Your task to perform on an android device: visit the assistant section in the google photos Image 0: 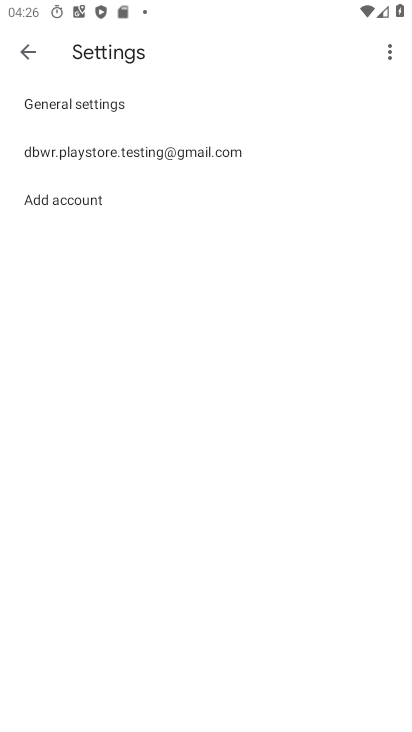
Step 0: click (24, 52)
Your task to perform on an android device: visit the assistant section in the google photos Image 1: 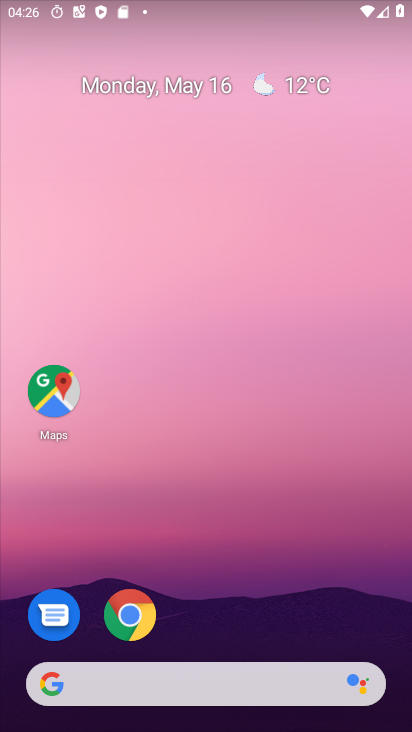
Step 1: drag from (311, 713) to (243, 3)
Your task to perform on an android device: visit the assistant section in the google photos Image 2: 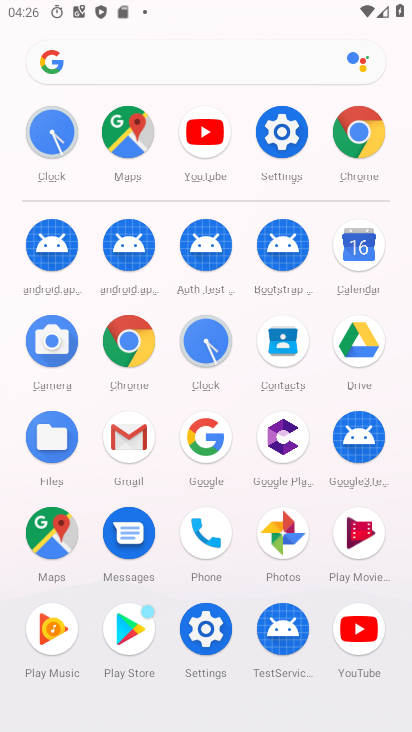
Step 2: click (281, 528)
Your task to perform on an android device: visit the assistant section in the google photos Image 3: 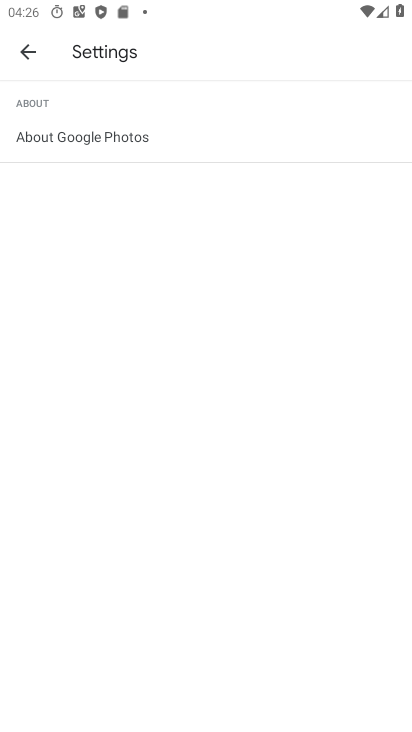
Step 3: click (28, 51)
Your task to perform on an android device: visit the assistant section in the google photos Image 4: 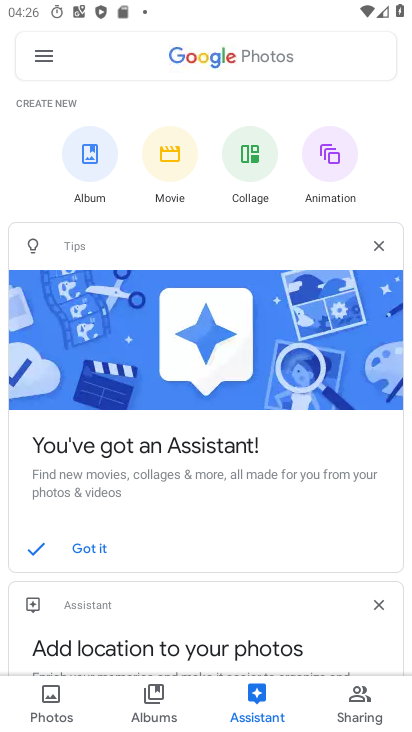
Step 4: drag from (322, 554) to (256, 273)
Your task to perform on an android device: visit the assistant section in the google photos Image 5: 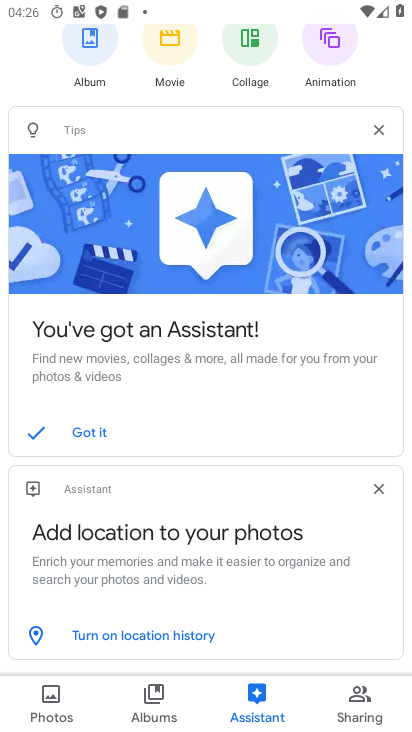
Step 5: drag from (271, 498) to (230, 148)
Your task to perform on an android device: visit the assistant section in the google photos Image 6: 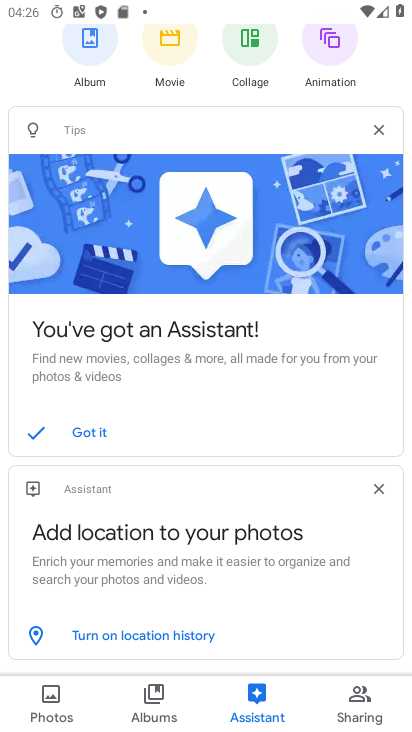
Step 6: drag from (208, 518) to (77, 82)
Your task to perform on an android device: visit the assistant section in the google photos Image 7: 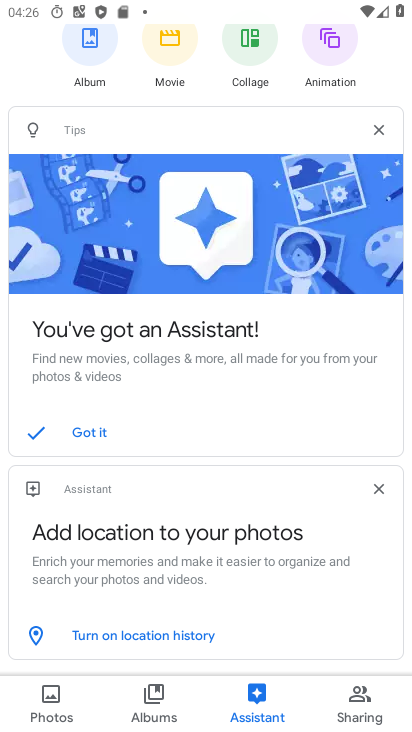
Step 7: drag from (234, 519) to (162, 139)
Your task to perform on an android device: visit the assistant section in the google photos Image 8: 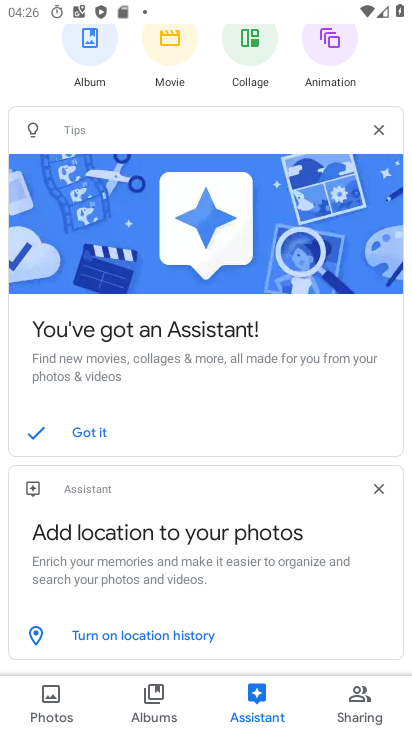
Step 8: drag from (170, 467) to (146, 56)
Your task to perform on an android device: visit the assistant section in the google photos Image 9: 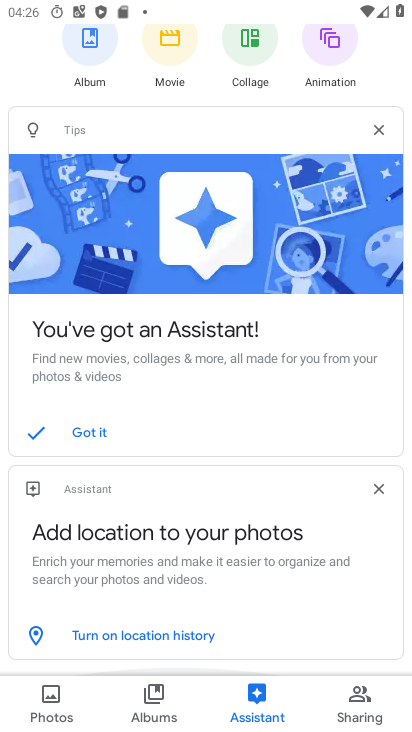
Step 9: drag from (150, 365) to (118, 136)
Your task to perform on an android device: visit the assistant section in the google photos Image 10: 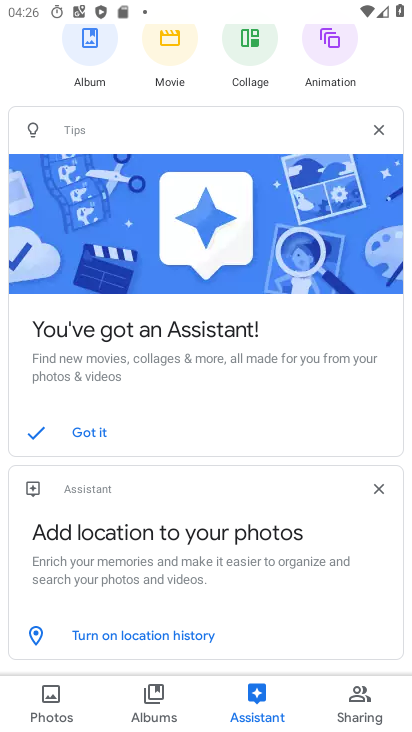
Step 10: drag from (102, 207) to (163, 553)
Your task to perform on an android device: visit the assistant section in the google photos Image 11: 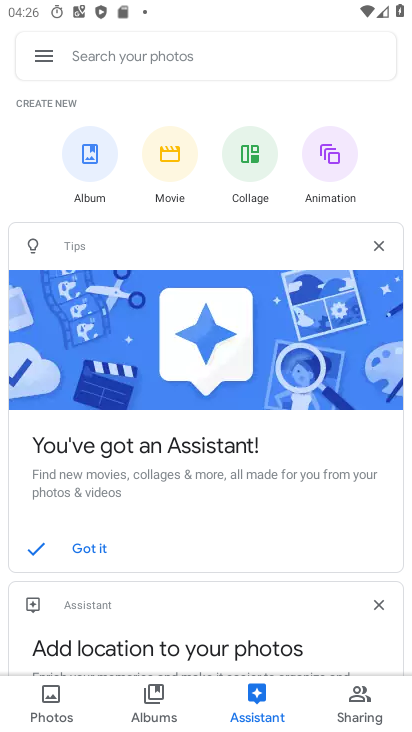
Step 11: drag from (211, 384) to (180, 119)
Your task to perform on an android device: visit the assistant section in the google photos Image 12: 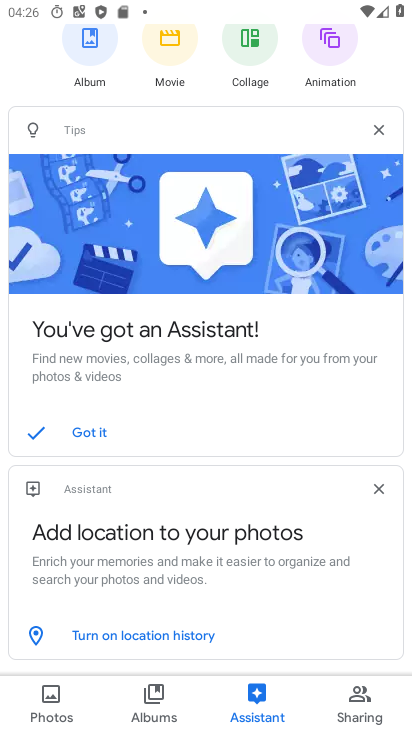
Step 12: drag from (209, 430) to (222, 211)
Your task to perform on an android device: visit the assistant section in the google photos Image 13: 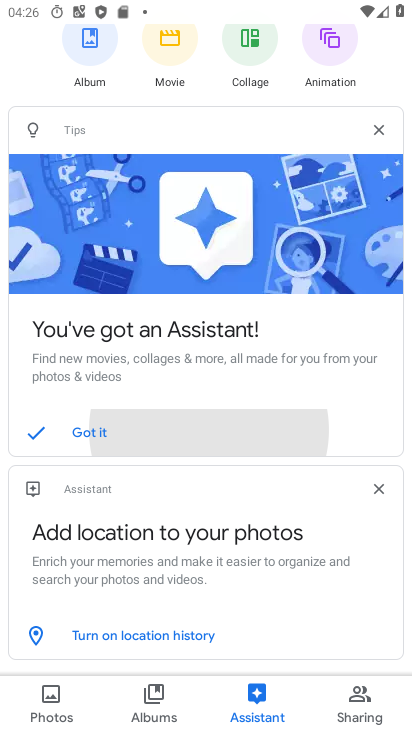
Step 13: drag from (257, 451) to (255, 135)
Your task to perform on an android device: visit the assistant section in the google photos Image 14: 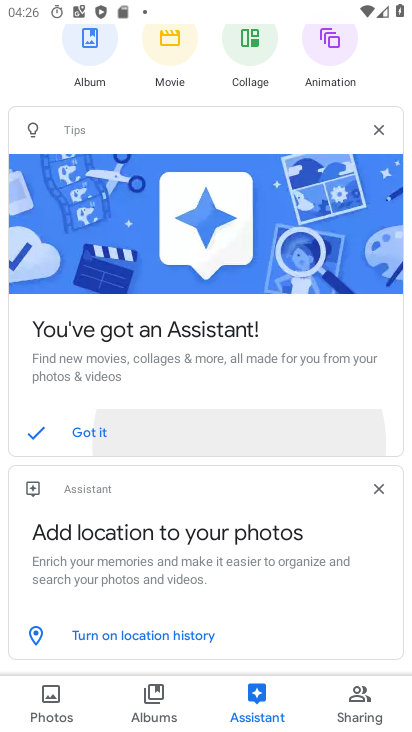
Step 14: drag from (196, 247) to (185, 181)
Your task to perform on an android device: visit the assistant section in the google photos Image 15: 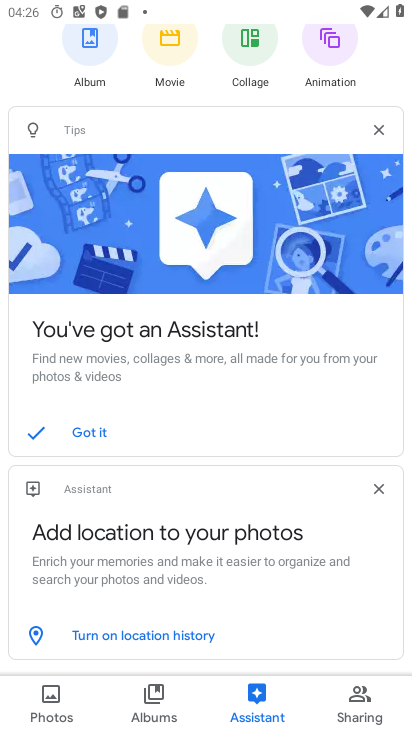
Step 15: drag from (179, 372) to (179, 266)
Your task to perform on an android device: visit the assistant section in the google photos Image 16: 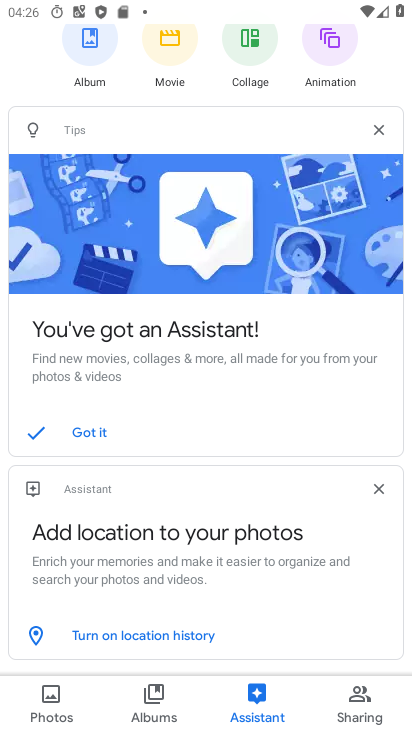
Step 16: drag from (220, 414) to (227, 285)
Your task to perform on an android device: visit the assistant section in the google photos Image 17: 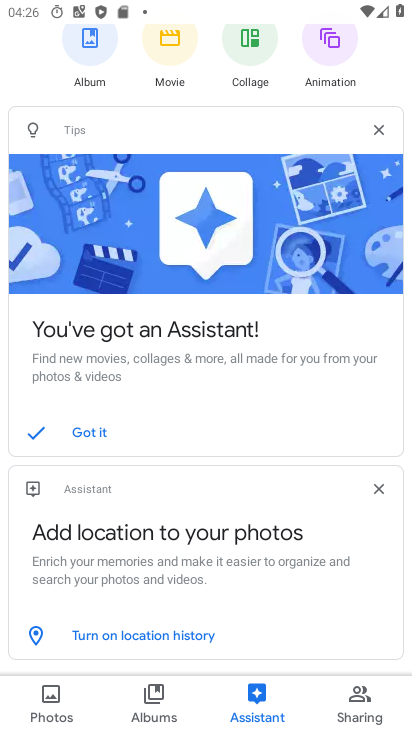
Step 17: drag from (251, 483) to (269, 272)
Your task to perform on an android device: visit the assistant section in the google photos Image 18: 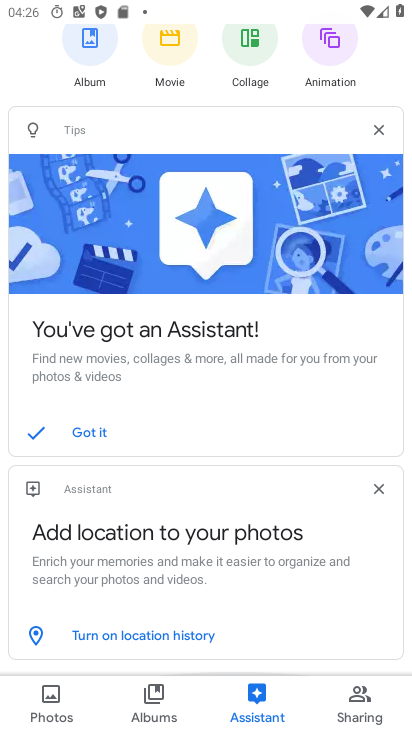
Step 18: drag from (309, 537) to (320, 250)
Your task to perform on an android device: visit the assistant section in the google photos Image 19: 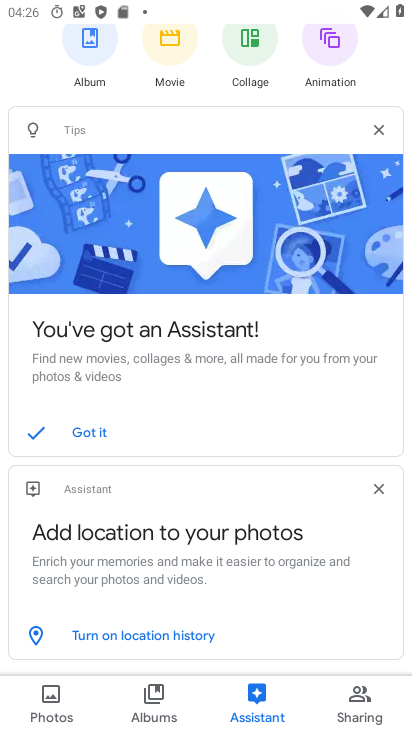
Step 19: click (270, 297)
Your task to perform on an android device: visit the assistant section in the google photos Image 20: 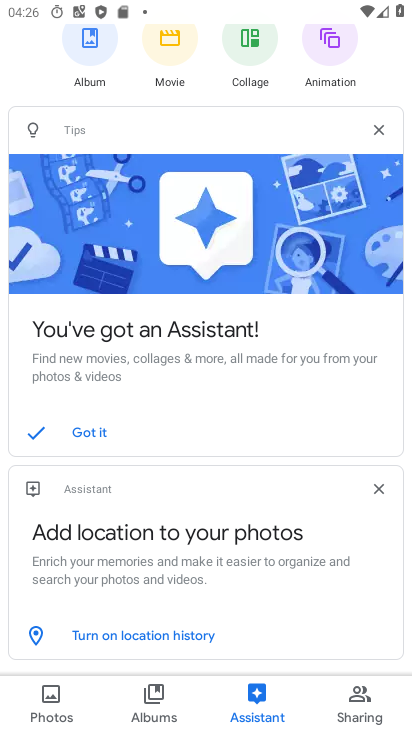
Step 20: drag from (215, 541) to (204, 165)
Your task to perform on an android device: visit the assistant section in the google photos Image 21: 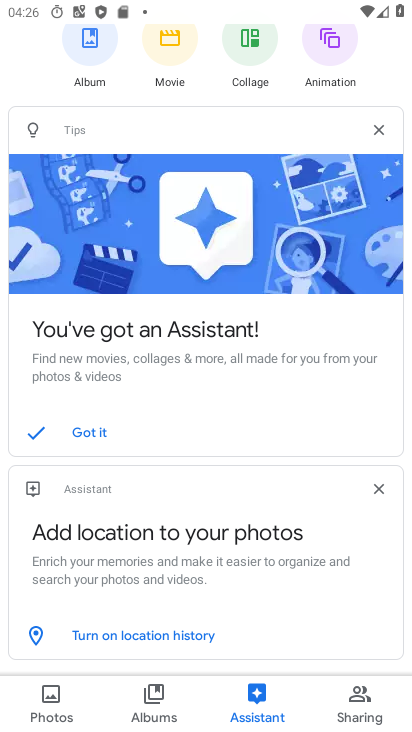
Step 21: drag from (180, 443) to (172, 301)
Your task to perform on an android device: visit the assistant section in the google photos Image 22: 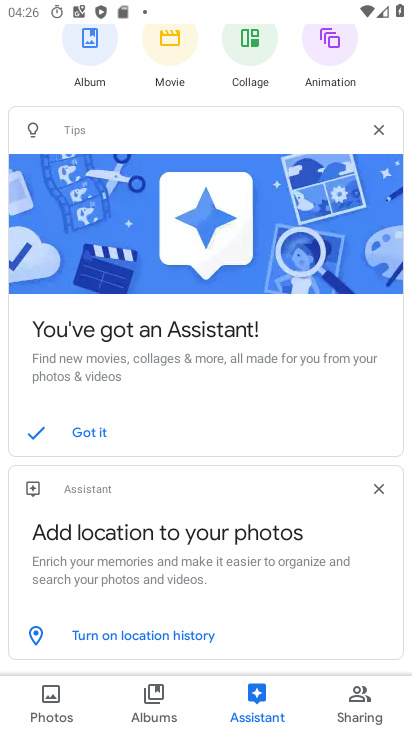
Step 22: drag from (169, 245) to (165, 76)
Your task to perform on an android device: visit the assistant section in the google photos Image 23: 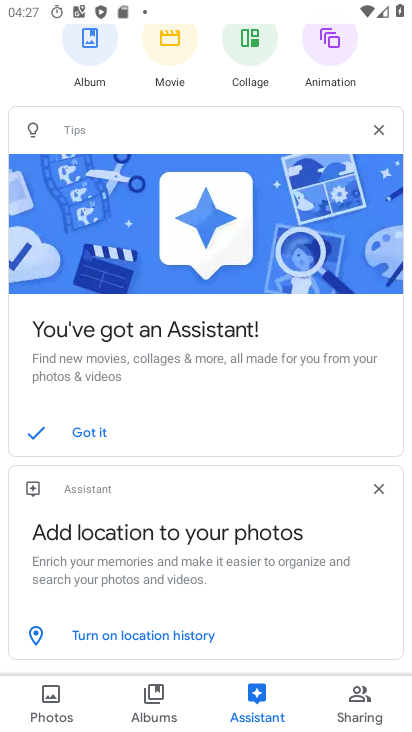
Step 23: drag from (185, 482) to (167, 239)
Your task to perform on an android device: visit the assistant section in the google photos Image 24: 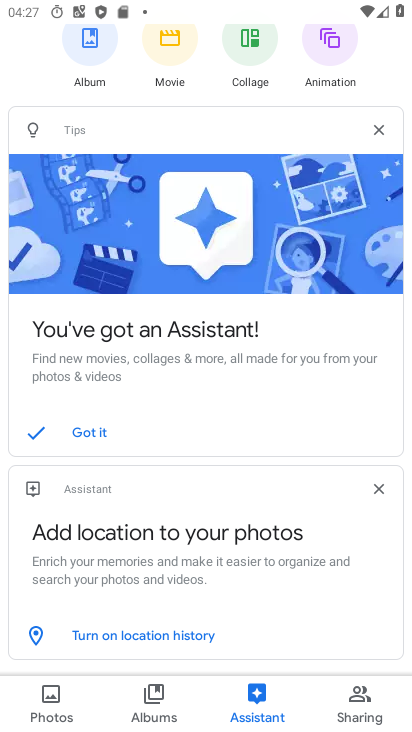
Step 24: click (247, 694)
Your task to perform on an android device: visit the assistant section in the google photos Image 25: 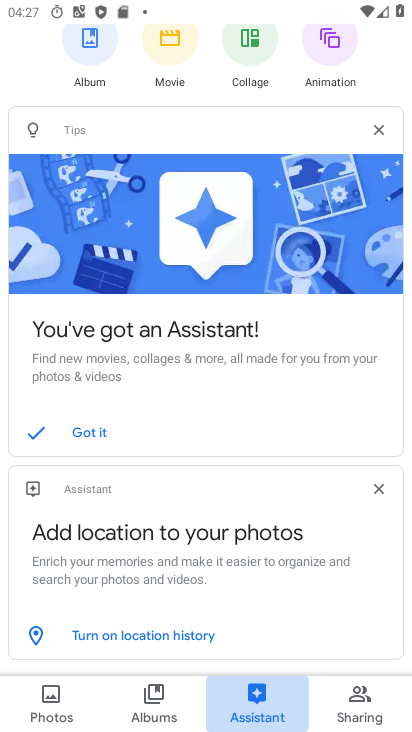
Step 25: click (245, 690)
Your task to perform on an android device: visit the assistant section in the google photos Image 26: 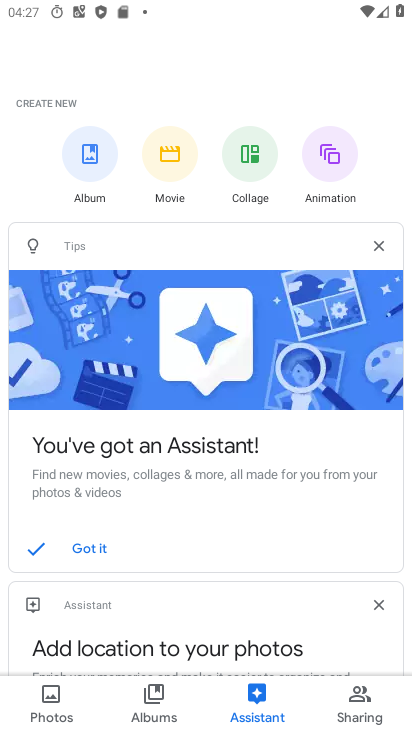
Step 26: task complete